Your task to perform on an android device: clear history in the chrome app Image 0: 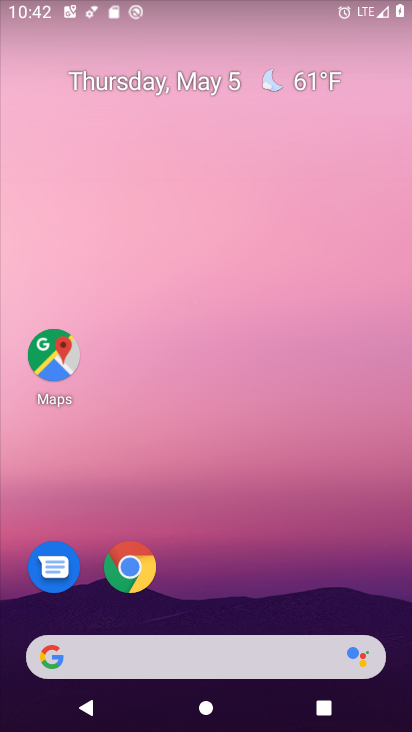
Step 0: click (124, 564)
Your task to perform on an android device: clear history in the chrome app Image 1: 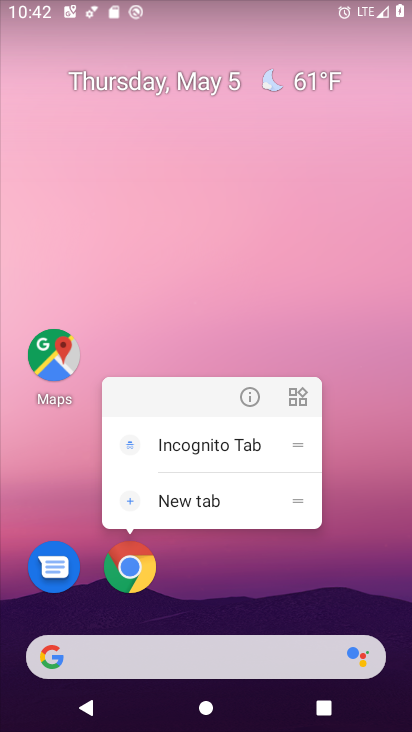
Step 1: click (136, 563)
Your task to perform on an android device: clear history in the chrome app Image 2: 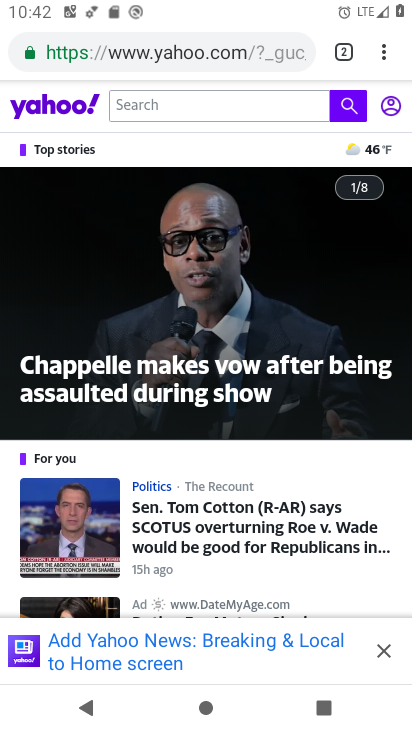
Step 2: click (393, 55)
Your task to perform on an android device: clear history in the chrome app Image 3: 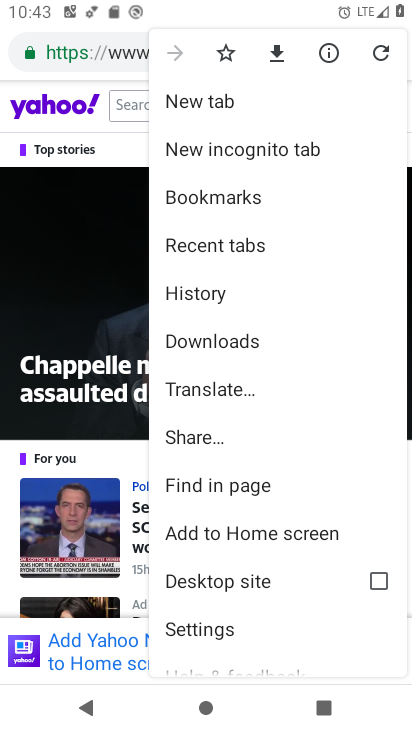
Step 3: click (197, 292)
Your task to perform on an android device: clear history in the chrome app Image 4: 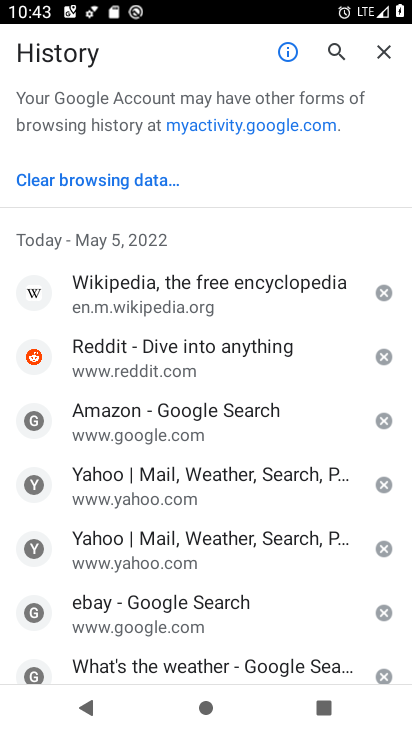
Step 4: click (125, 185)
Your task to perform on an android device: clear history in the chrome app Image 5: 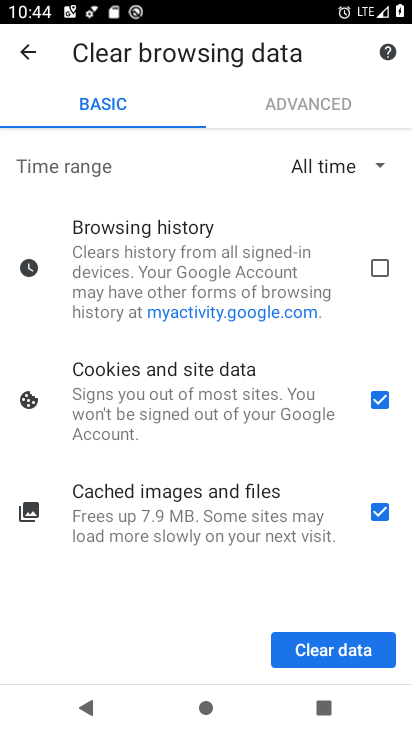
Step 5: click (376, 262)
Your task to perform on an android device: clear history in the chrome app Image 6: 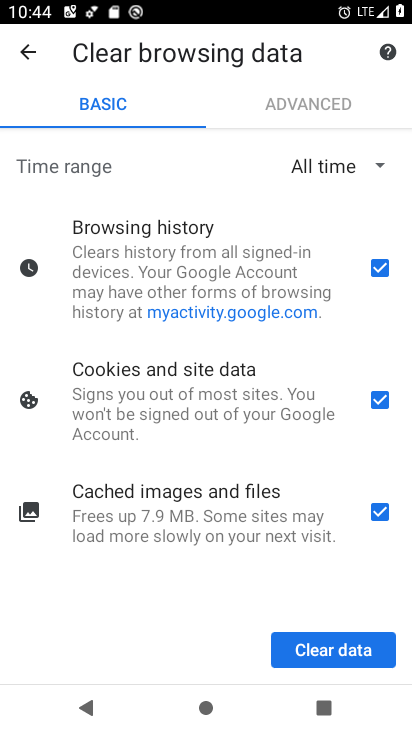
Step 6: click (348, 655)
Your task to perform on an android device: clear history in the chrome app Image 7: 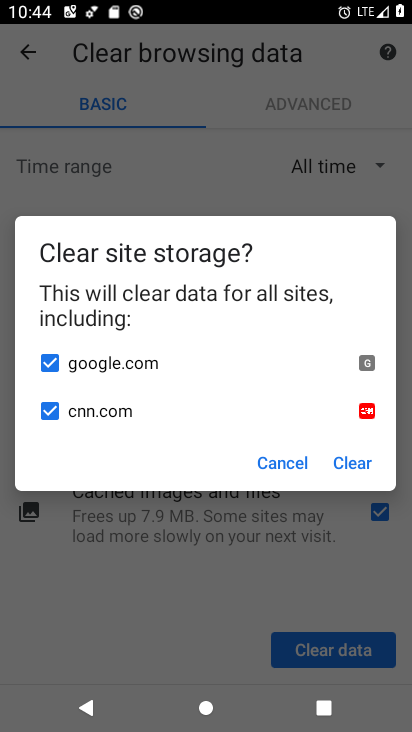
Step 7: click (358, 460)
Your task to perform on an android device: clear history in the chrome app Image 8: 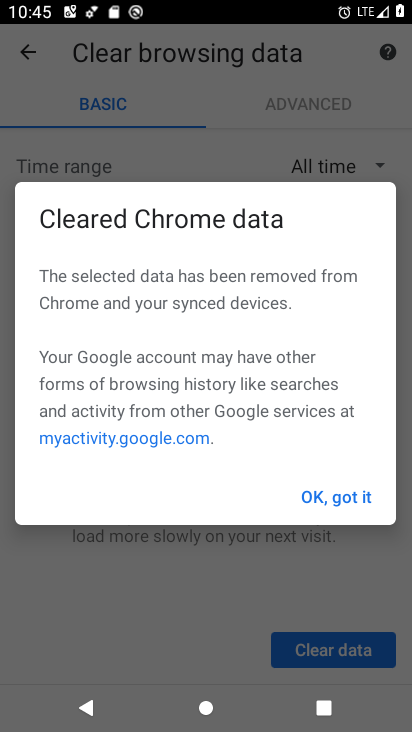
Step 8: click (361, 492)
Your task to perform on an android device: clear history in the chrome app Image 9: 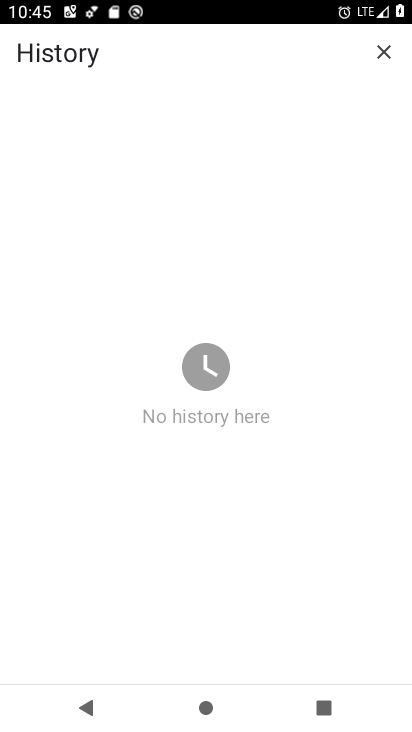
Step 9: task complete